Your task to perform on an android device: change text size in settings app Image 0: 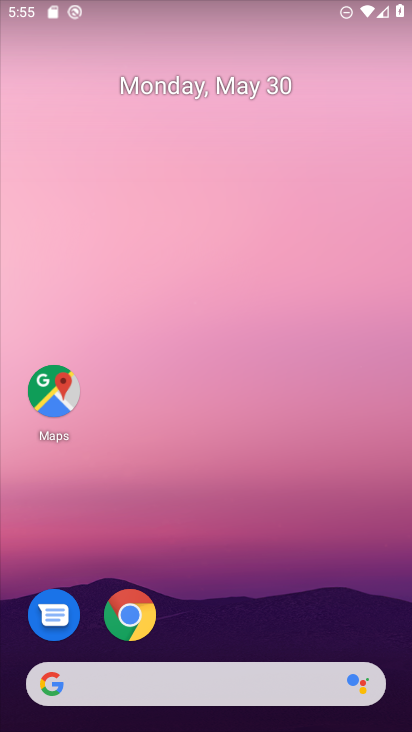
Step 0: drag from (200, 637) to (171, 8)
Your task to perform on an android device: change text size in settings app Image 1: 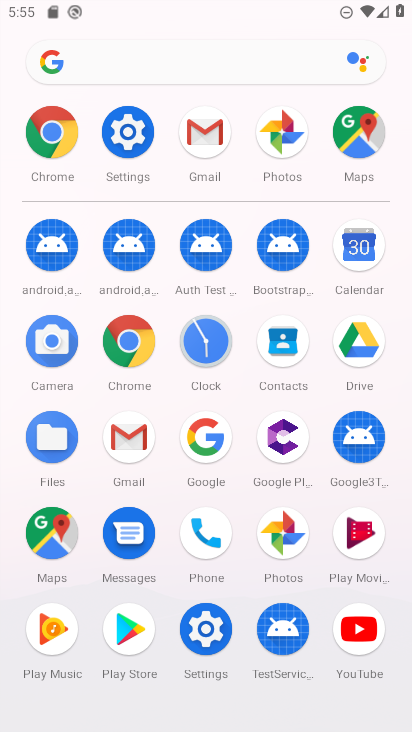
Step 1: click (145, 196)
Your task to perform on an android device: change text size in settings app Image 2: 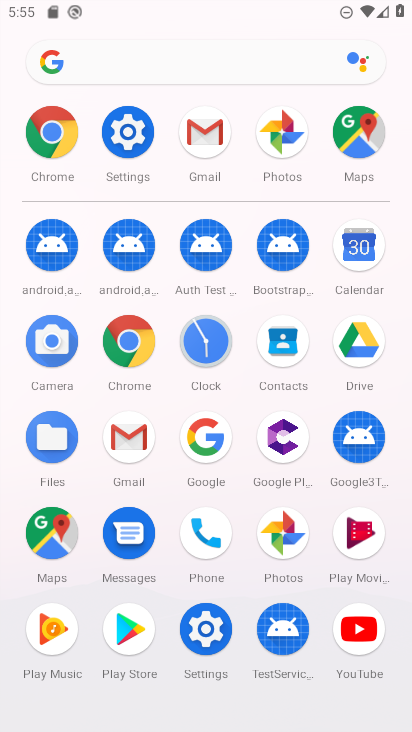
Step 2: click (144, 131)
Your task to perform on an android device: change text size in settings app Image 3: 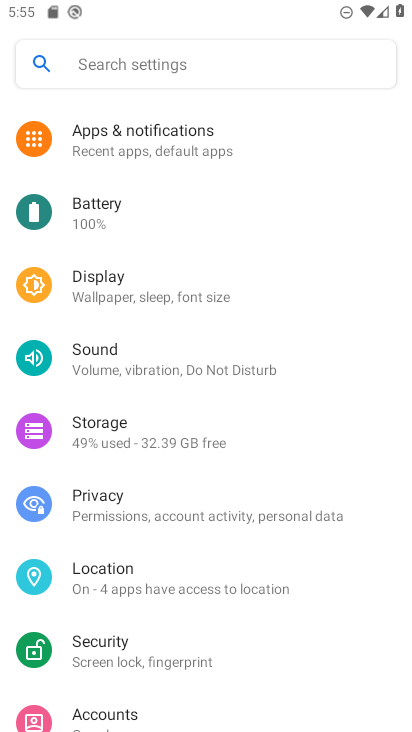
Step 3: click (99, 292)
Your task to perform on an android device: change text size in settings app Image 4: 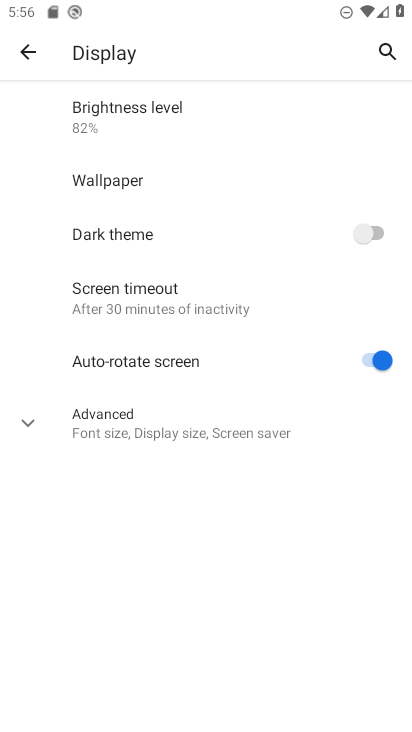
Step 4: click (71, 423)
Your task to perform on an android device: change text size in settings app Image 5: 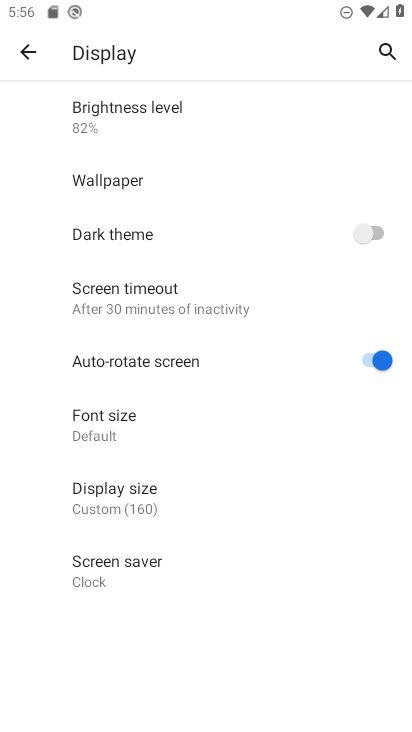
Step 5: click (74, 430)
Your task to perform on an android device: change text size in settings app Image 6: 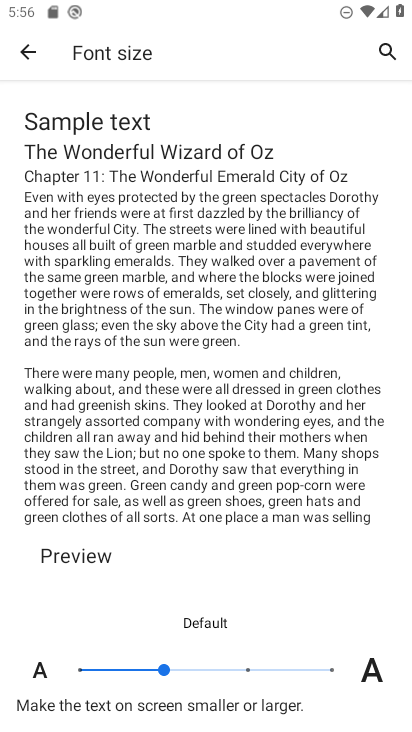
Step 6: click (79, 672)
Your task to perform on an android device: change text size in settings app Image 7: 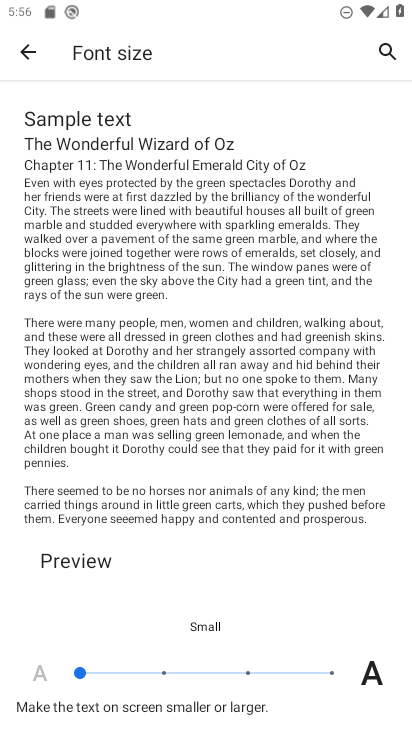
Step 7: task complete